Your task to perform on an android device: Check the news Image 0: 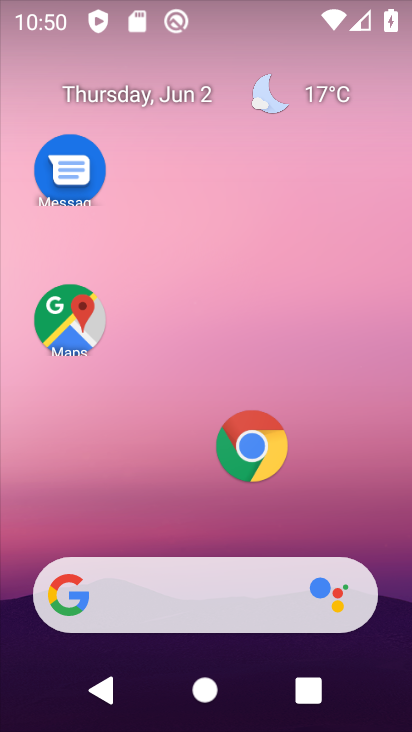
Step 0: click (252, 449)
Your task to perform on an android device: Check the news Image 1: 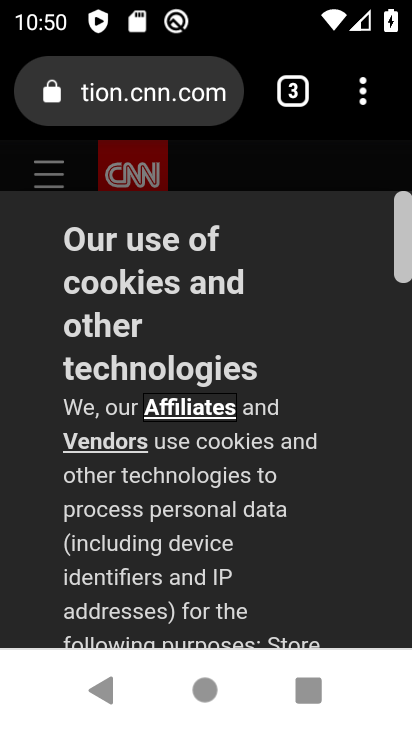
Step 1: click (181, 114)
Your task to perform on an android device: Check the news Image 2: 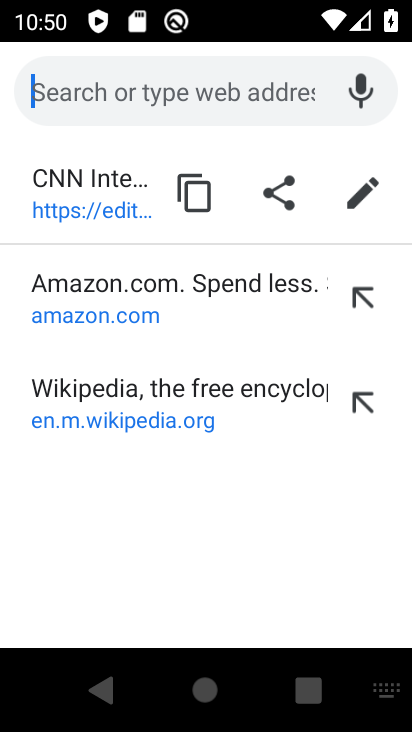
Step 2: type "Check the news"
Your task to perform on an android device: Check the news Image 3: 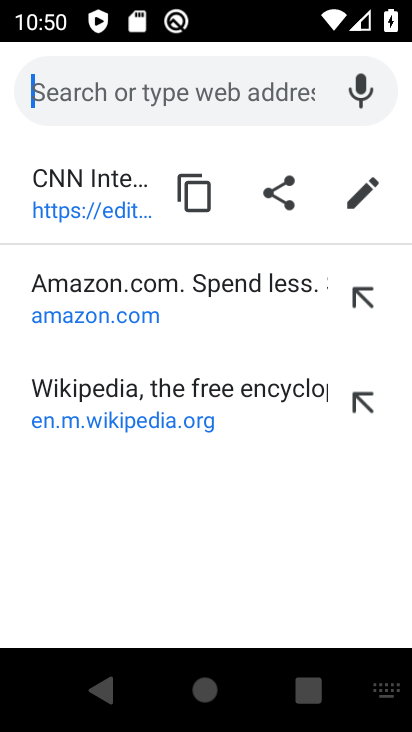
Step 3: click (131, 183)
Your task to perform on an android device: Check the news Image 4: 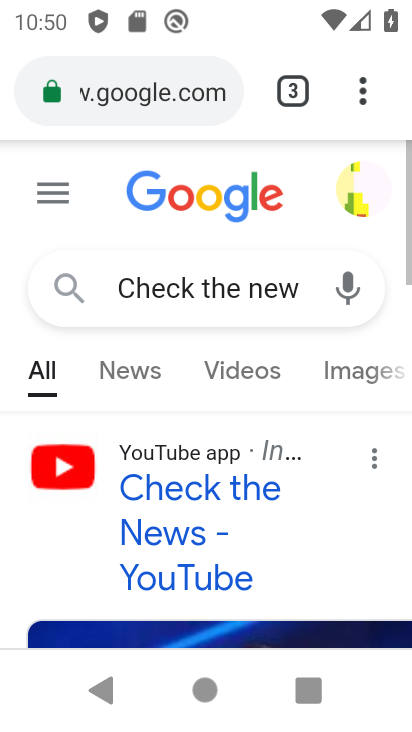
Step 4: task complete